Your task to perform on an android device: empty trash in google photos Image 0: 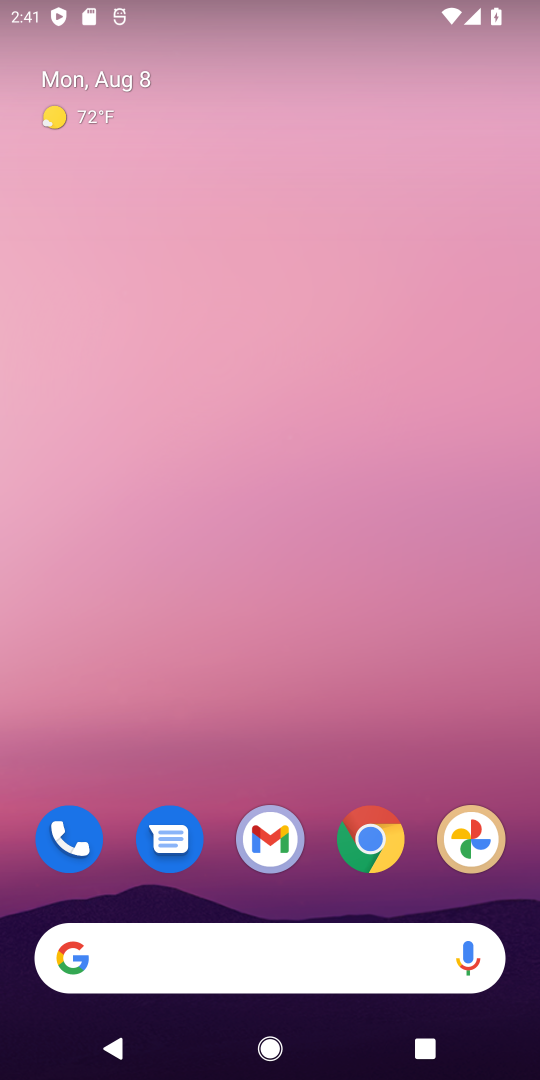
Step 0: press home button
Your task to perform on an android device: empty trash in google photos Image 1: 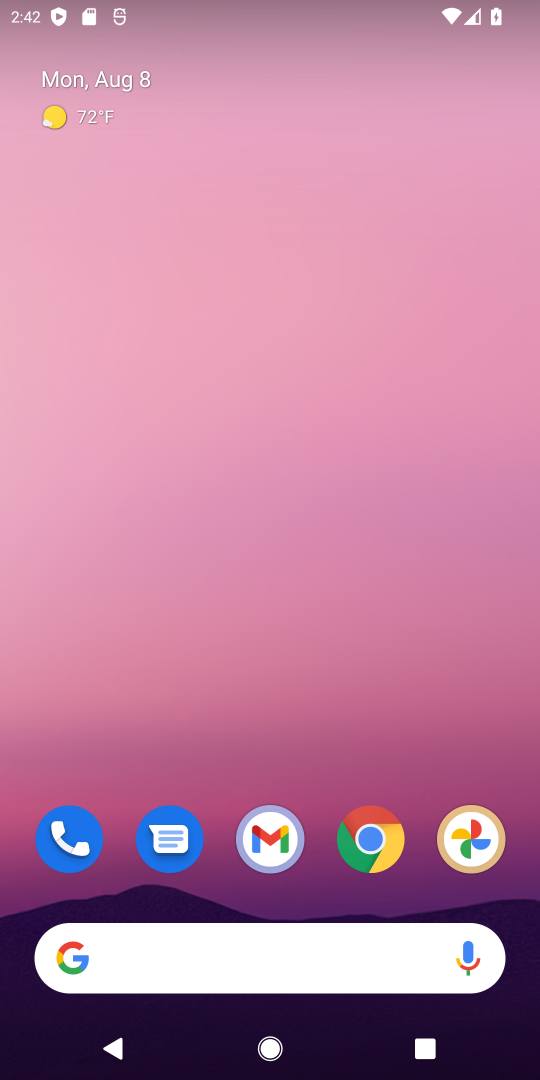
Step 1: drag from (317, 751) to (368, 119)
Your task to perform on an android device: empty trash in google photos Image 2: 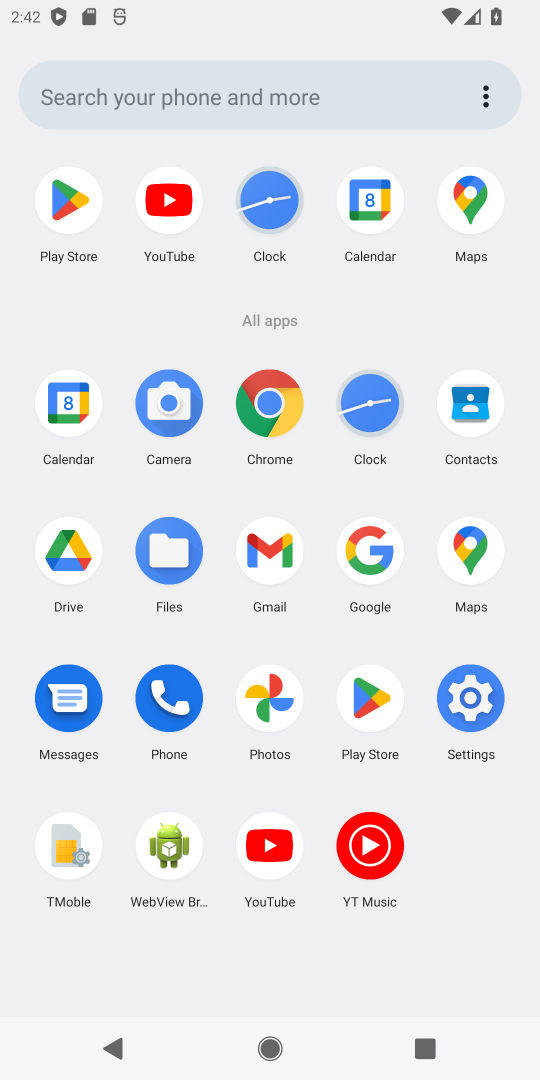
Step 2: click (275, 696)
Your task to perform on an android device: empty trash in google photos Image 3: 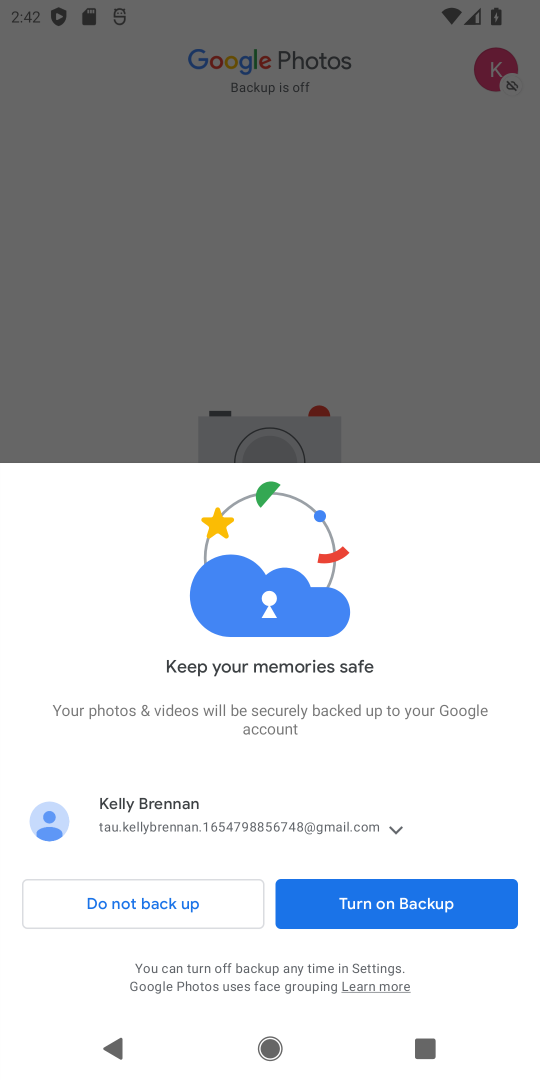
Step 3: click (169, 900)
Your task to perform on an android device: empty trash in google photos Image 4: 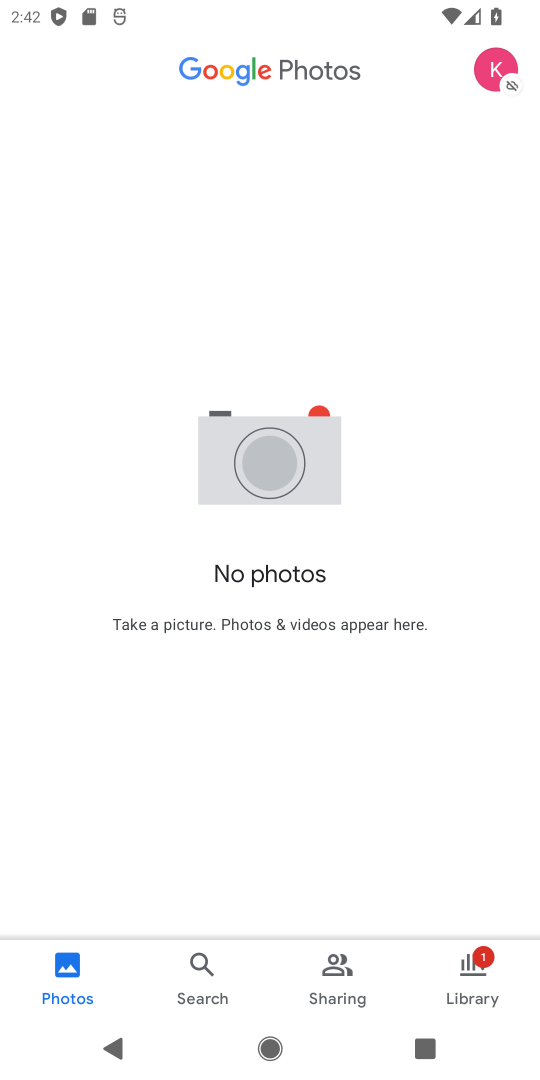
Step 4: click (471, 961)
Your task to perform on an android device: empty trash in google photos Image 5: 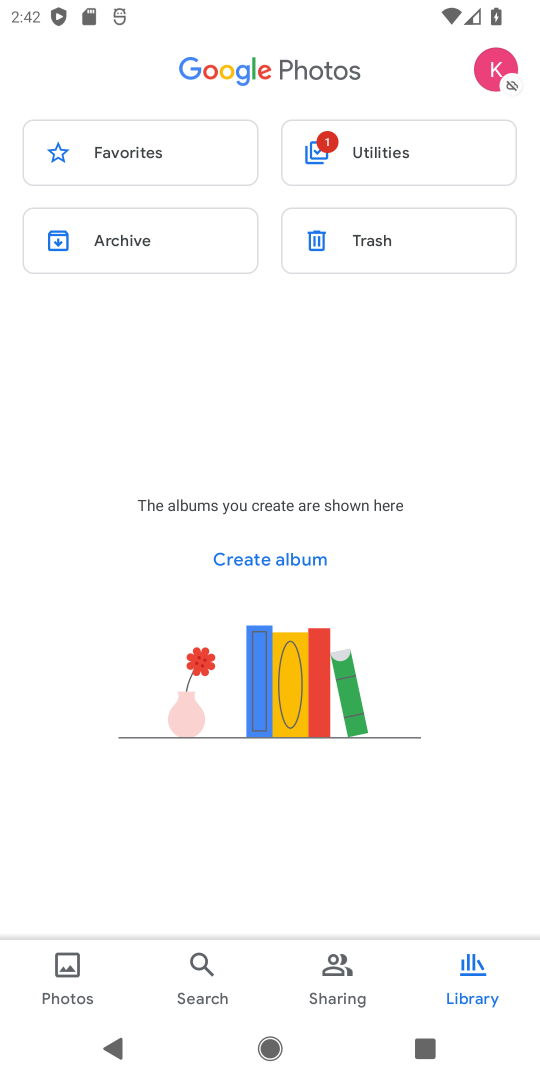
Step 5: click (364, 235)
Your task to perform on an android device: empty trash in google photos Image 6: 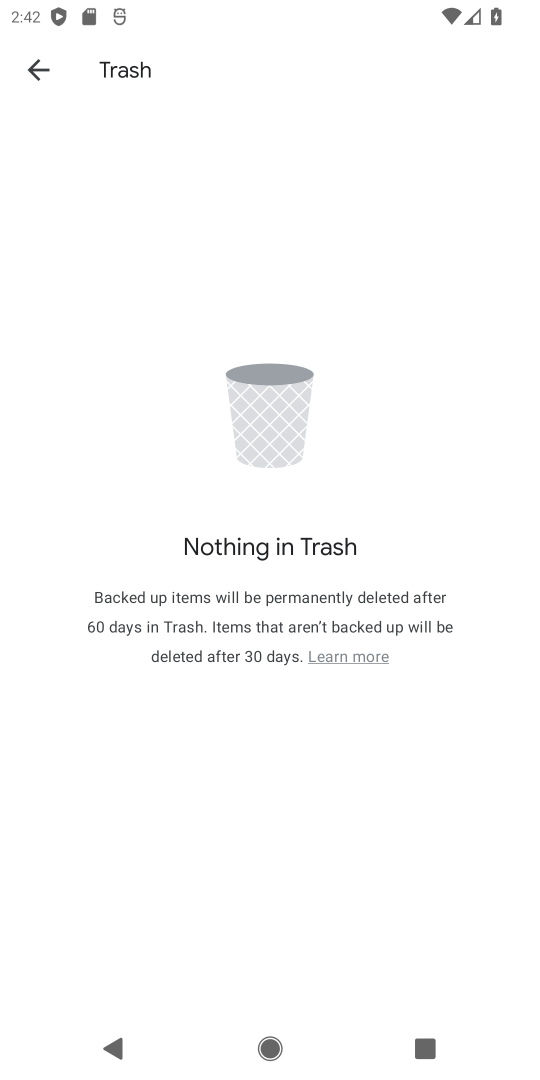
Step 6: task complete